Your task to perform on an android device: Open Amazon Image 0: 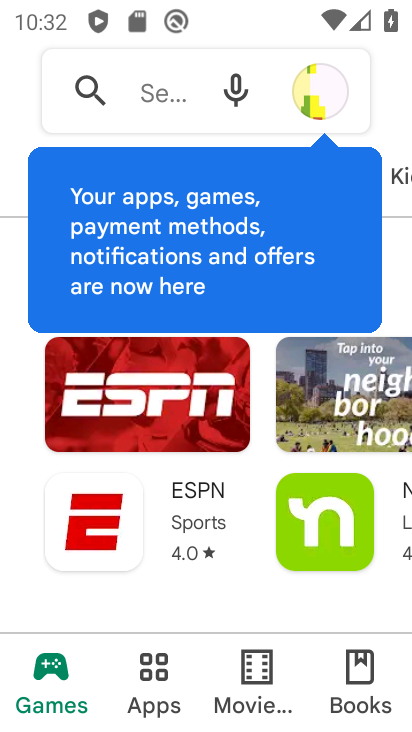
Step 0: press back button
Your task to perform on an android device: Open Amazon Image 1: 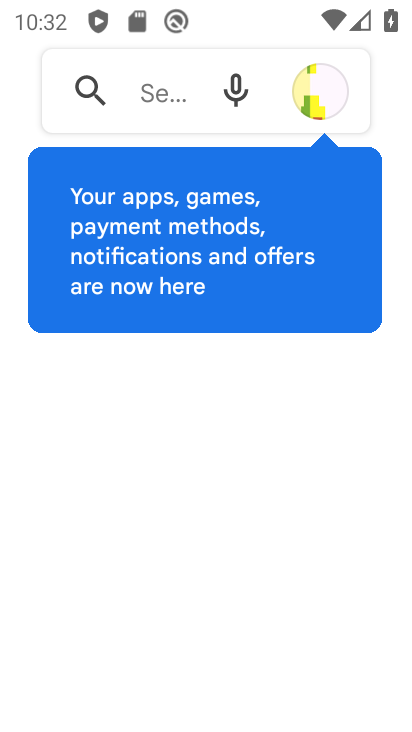
Step 1: press back button
Your task to perform on an android device: Open Amazon Image 2: 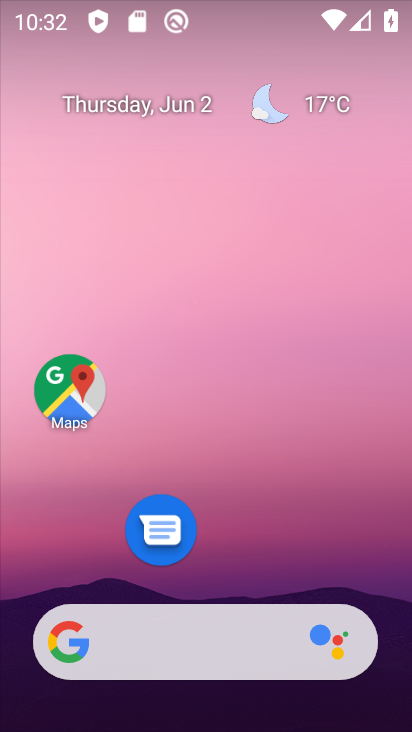
Step 2: drag from (316, 683) to (164, 100)
Your task to perform on an android device: Open Amazon Image 3: 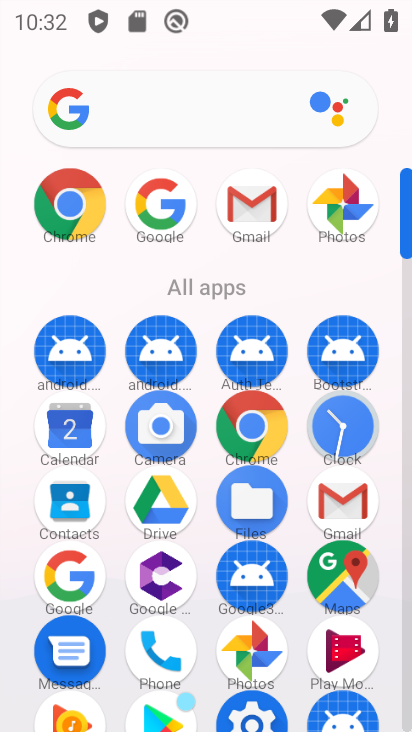
Step 3: click (75, 202)
Your task to perform on an android device: Open Amazon Image 4: 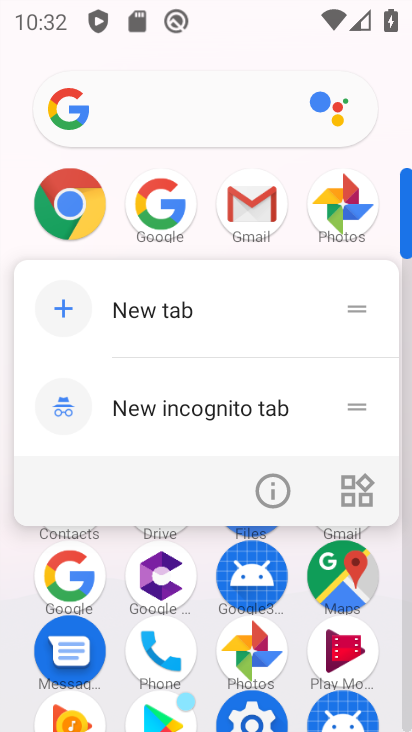
Step 4: click (75, 202)
Your task to perform on an android device: Open Amazon Image 5: 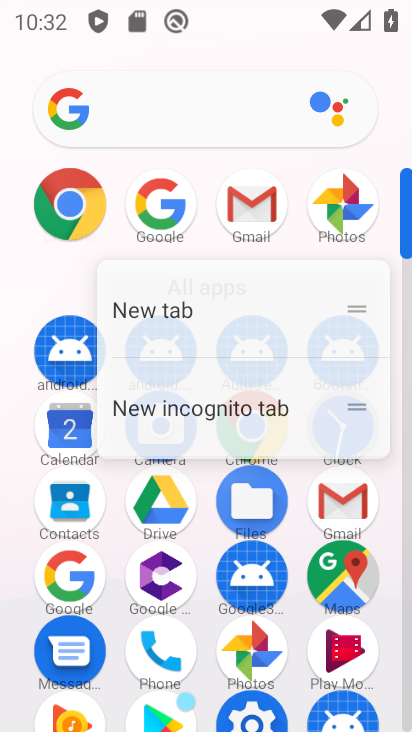
Step 5: click (72, 202)
Your task to perform on an android device: Open Amazon Image 6: 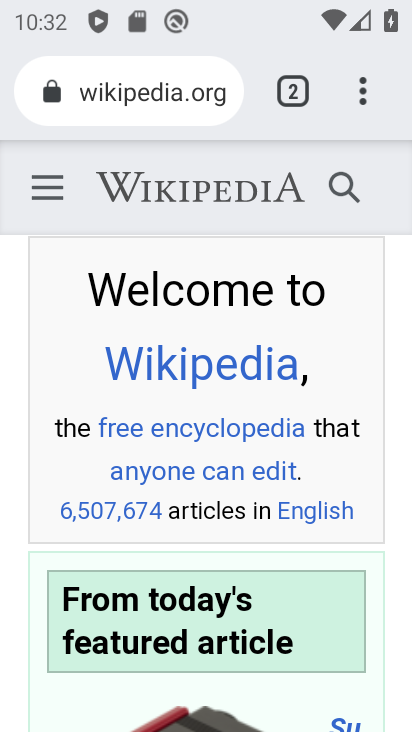
Step 6: click (360, 96)
Your task to perform on an android device: Open Amazon Image 7: 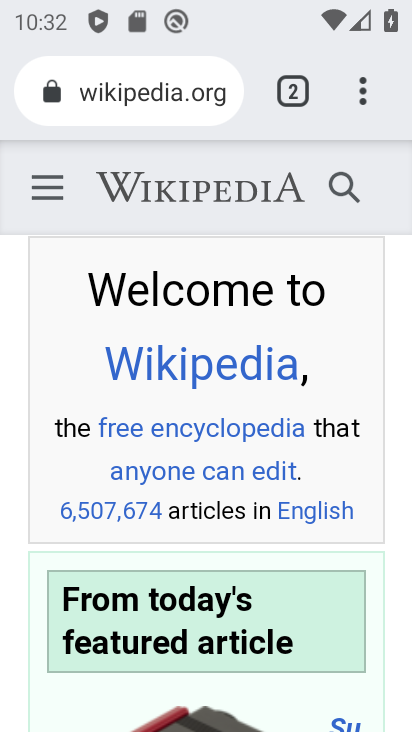
Step 7: click (360, 98)
Your task to perform on an android device: Open Amazon Image 8: 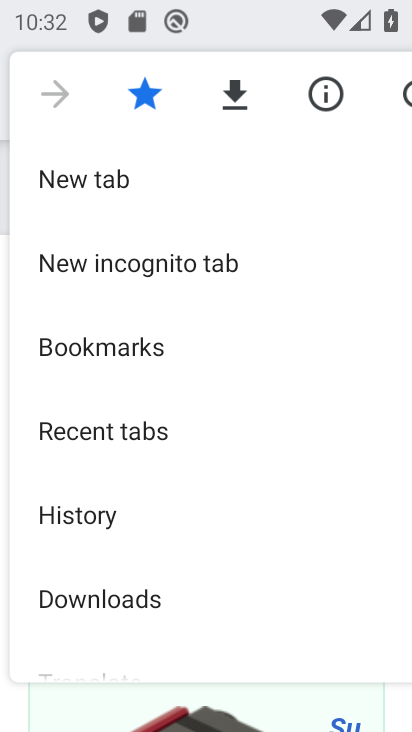
Step 8: click (63, 185)
Your task to perform on an android device: Open Amazon Image 9: 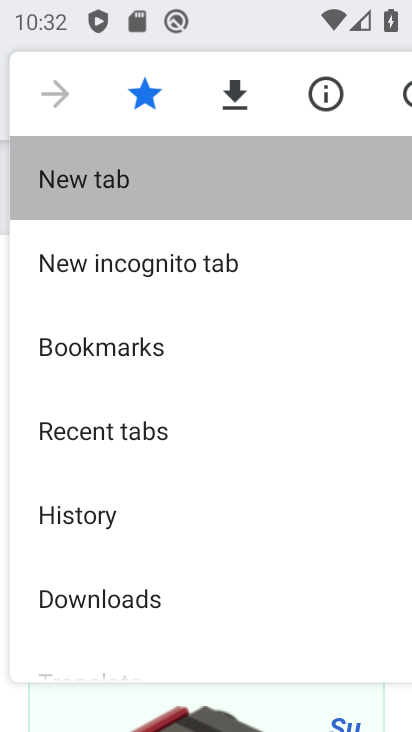
Step 9: click (63, 185)
Your task to perform on an android device: Open Amazon Image 10: 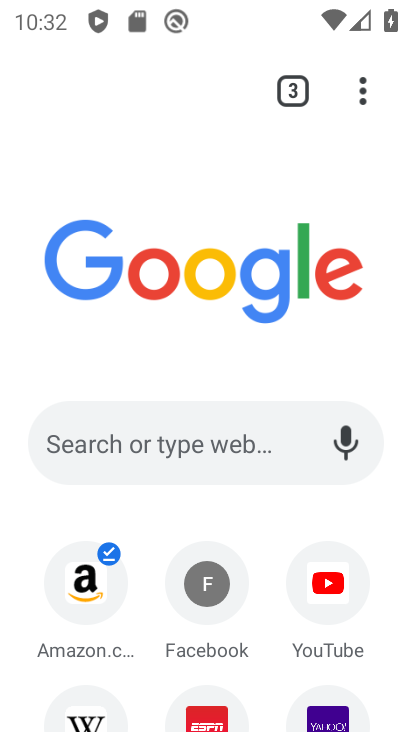
Step 10: click (100, 578)
Your task to perform on an android device: Open Amazon Image 11: 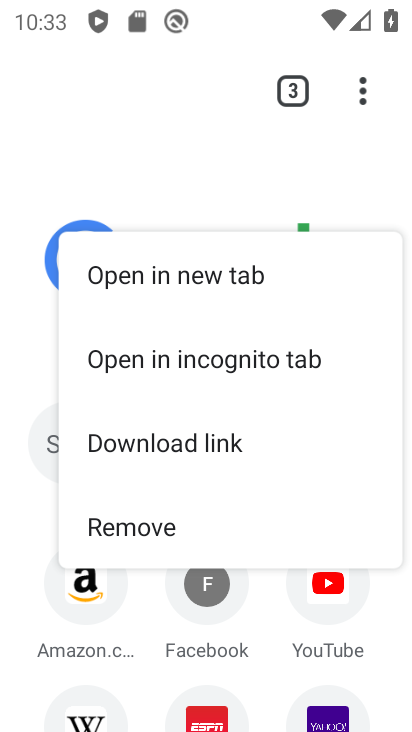
Step 11: click (86, 578)
Your task to perform on an android device: Open Amazon Image 12: 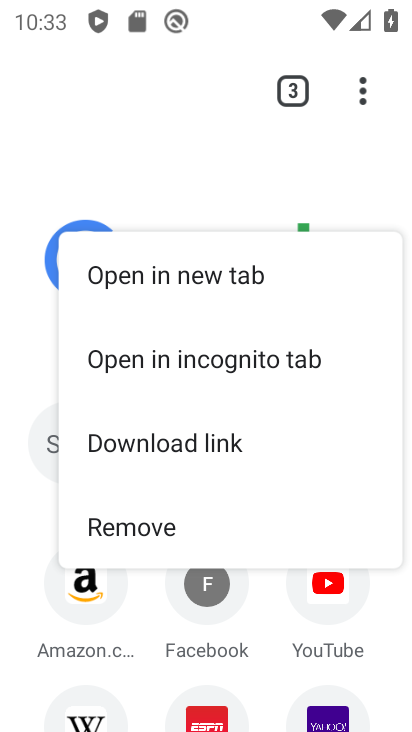
Step 12: click (78, 570)
Your task to perform on an android device: Open Amazon Image 13: 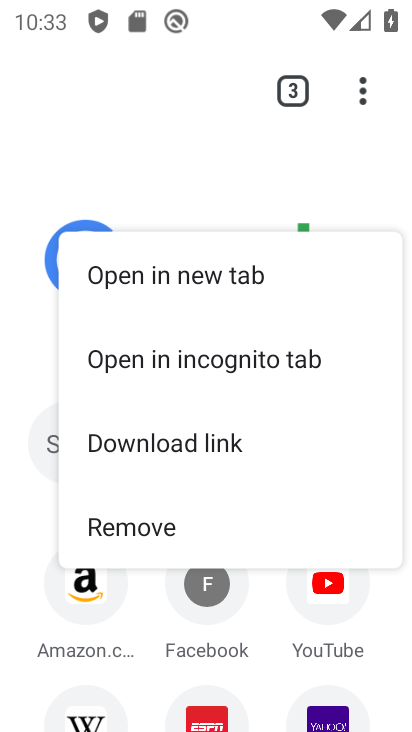
Step 13: click (74, 567)
Your task to perform on an android device: Open Amazon Image 14: 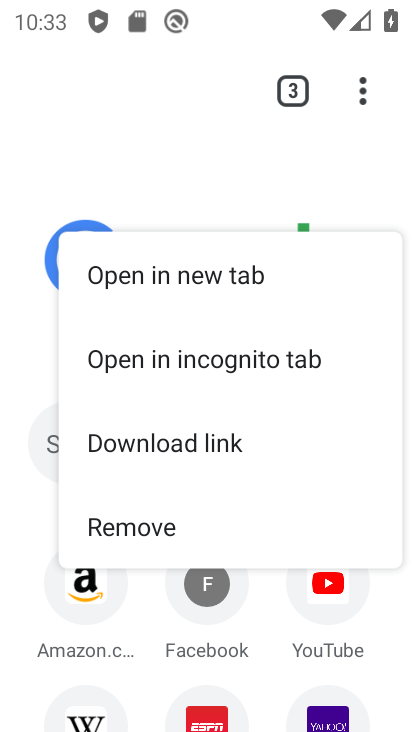
Step 14: click (74, 566)
Your task to perform on an android device: Open Amazon Image 15: 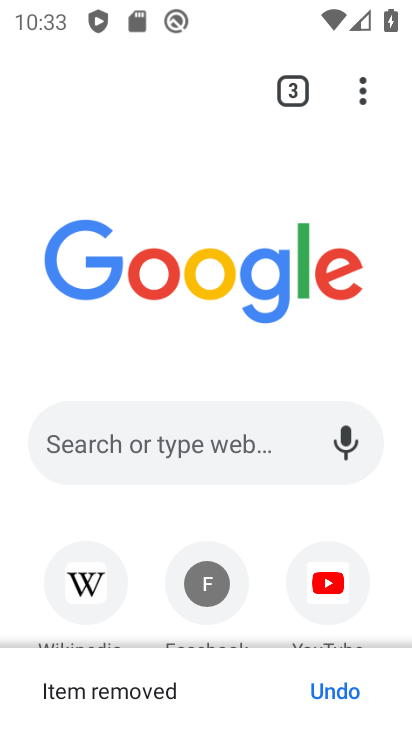
Step 15: click (73, 558)
Your task to perform on an android device: Open Amazon Image 16: 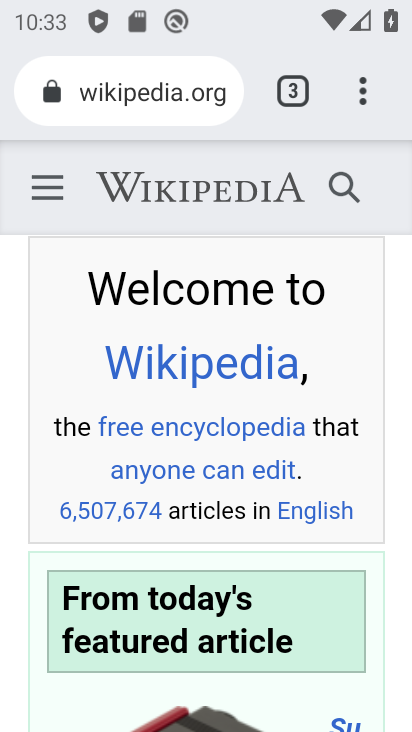
Step 16: click (83, 590)
Your task to perform on an android device: Open Amazon Image 17: 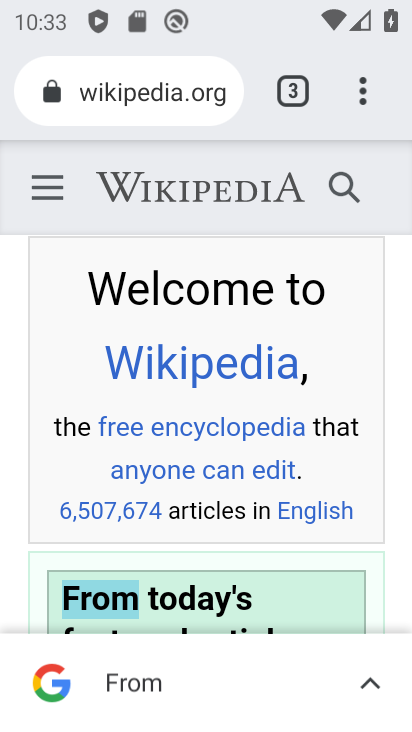
Step 17: click (83, 590)
Your task to perform on an android device: Open Amazon Image 18: 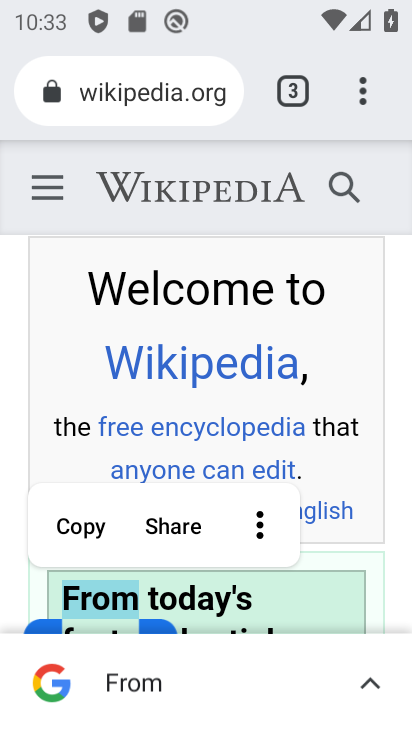
Step 18: click (309, 593)
Your task to perform on an android device: Open Amazon Image 19: 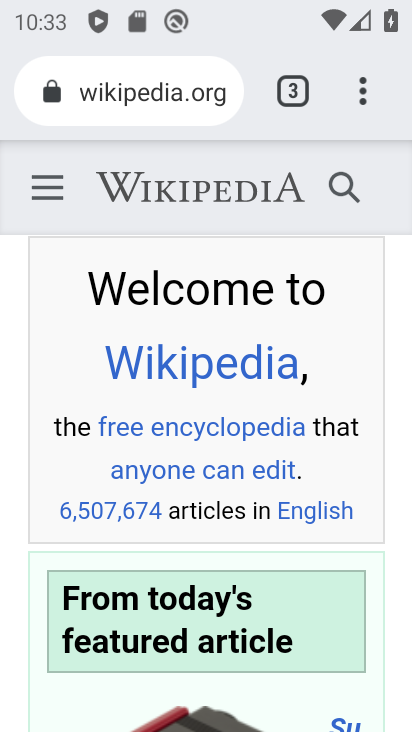
Step 19: click (361, 98)
Your task to perform on an android device: Open Amazon Image 20: 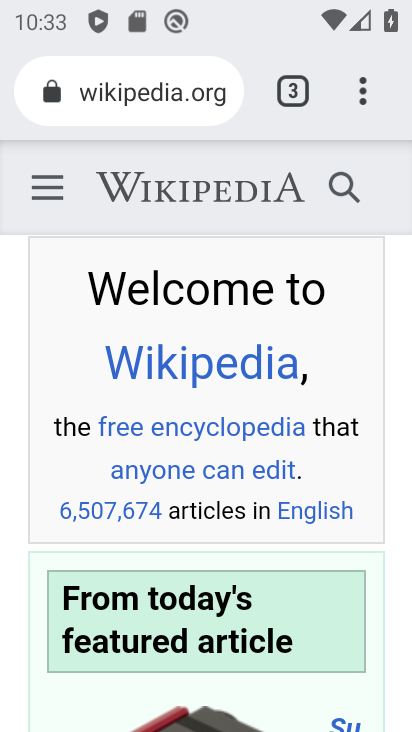
Step 20: click (359, 87)
Your task to perform on an android device: Open Amazon Image 21: 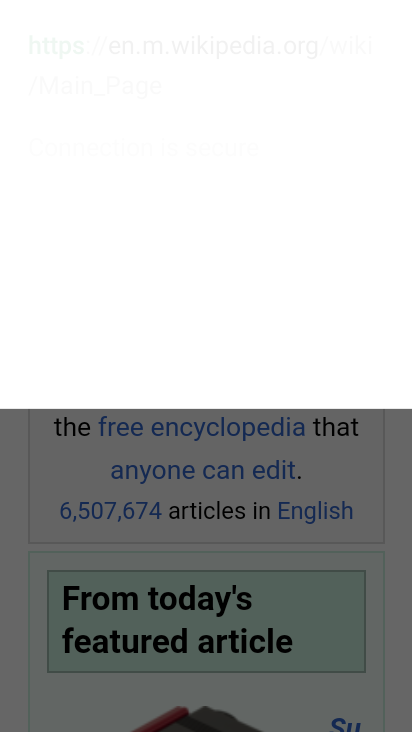
Step 21: click (354, 83)
Your task to perform on an android device: Open Amazon Image 22: 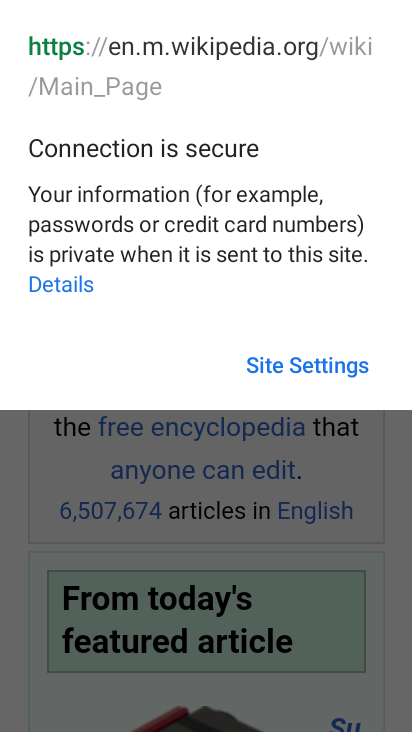
Step 22: click (356, 102)
Your task to perform on an android device: Open Amazon Image 23: 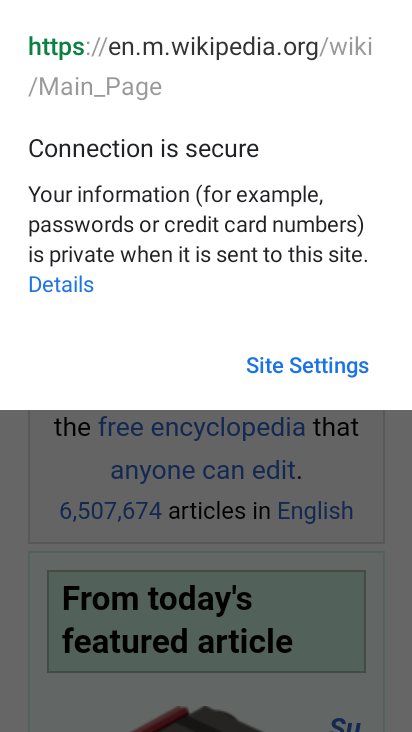
Step 23: drag from (364, 576) to (395, 482)
Your task to perform on an android device: Open Amazon Image 24: 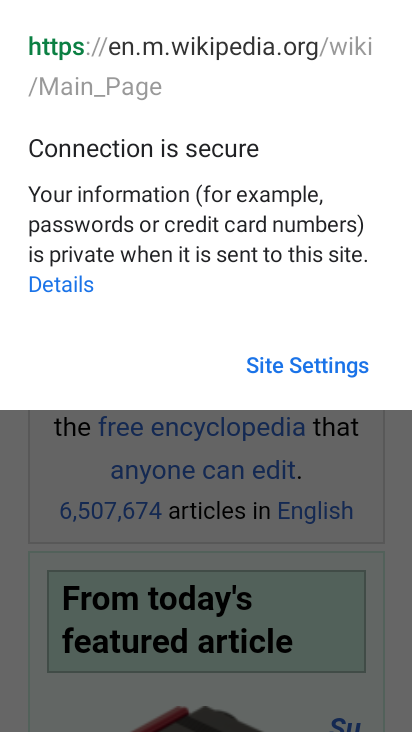
Step 24: click (399, 475)
Your task to perform on an android device: Open Amazon Image 25: 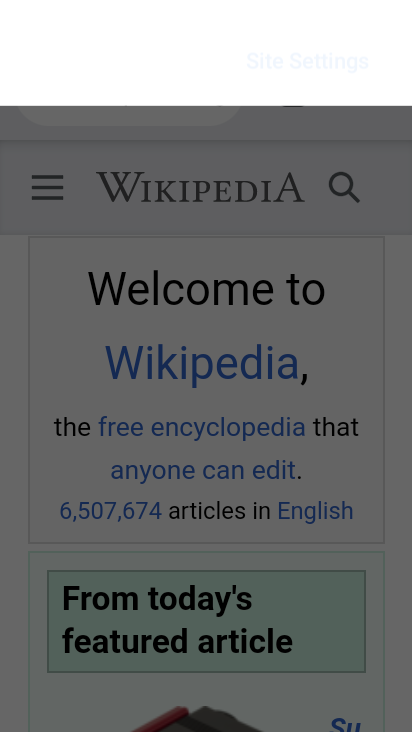
Step 25: click (386, 469)
Your task to perform on an android device: Open Amazon Image 26: 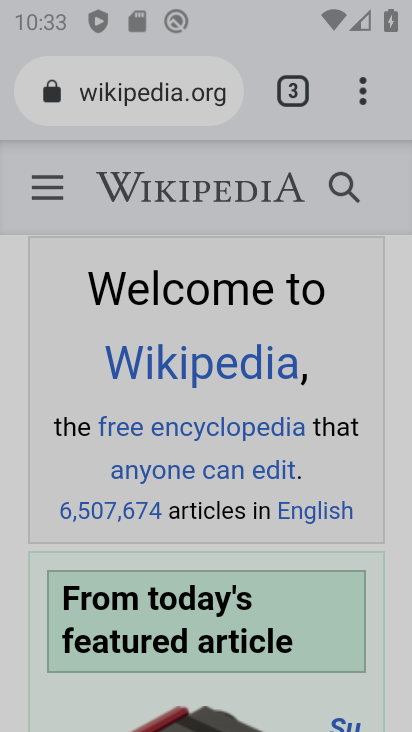
Step 26: click (385, 463)
Your task to perform on an android device: Open Amazon Image 27: 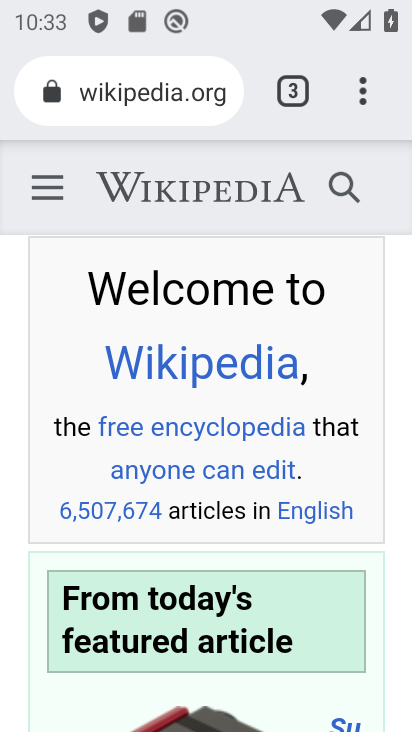
Step 27: click (387, 458)
Your task to perform on an android device: Open Amazon Image 28: 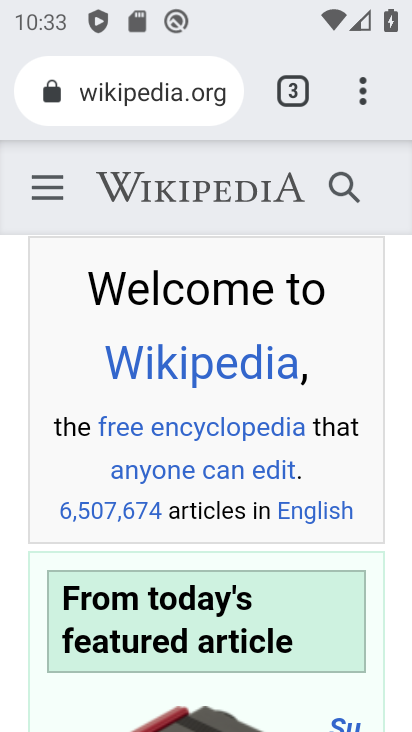
Step 28: drag from (352, 97) to (80, 188)
Your task to perform on an android device: Open Amazon Image 29: 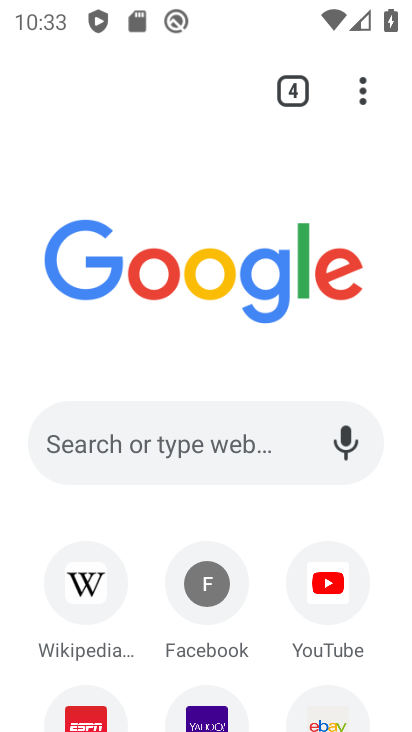
Step 29: drag from (176, 479) to (161, 266)
Your task to perform on an android device: Open Amazon Image 30: 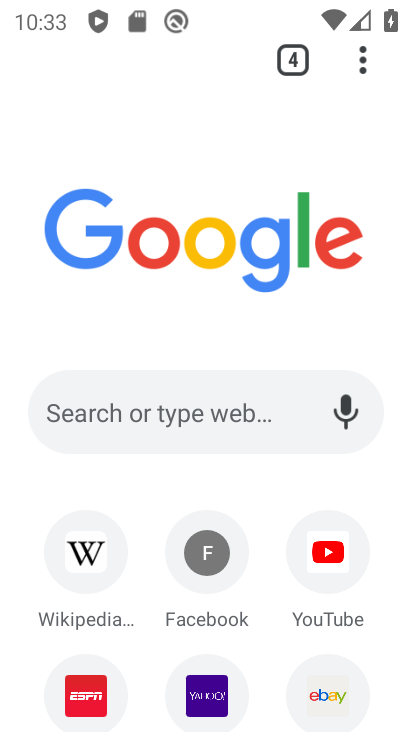
Step 30: drag from (217, 524) to (230, 249)
Your task to perform on an android device: Open Amazon Image 31: 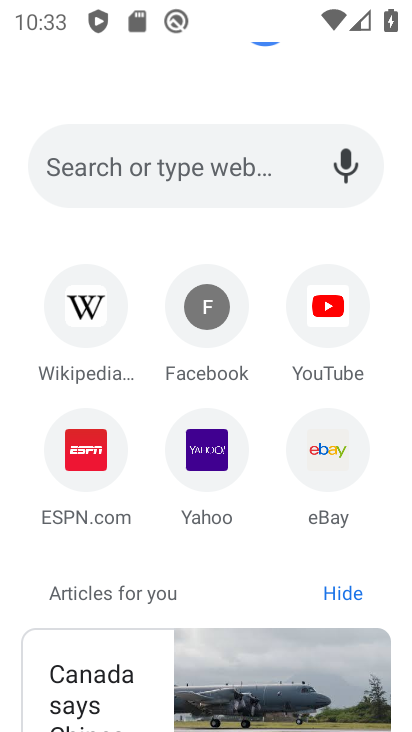
Step 31: click (75, 172)
Your task to perform on an android device: Open Amazon Image 32: 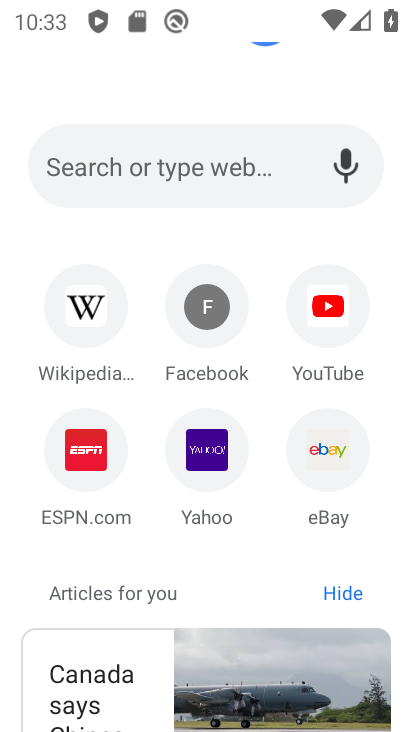
Step 32: click (75, 172)
Your task to perform on an android device: Open Amazon Image 33: 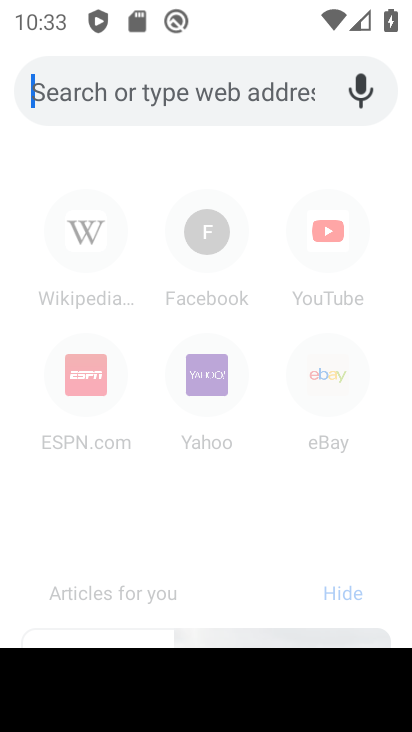
Step 33: type "am"
Your task to perform on an android device: Open Amazon Image 34: 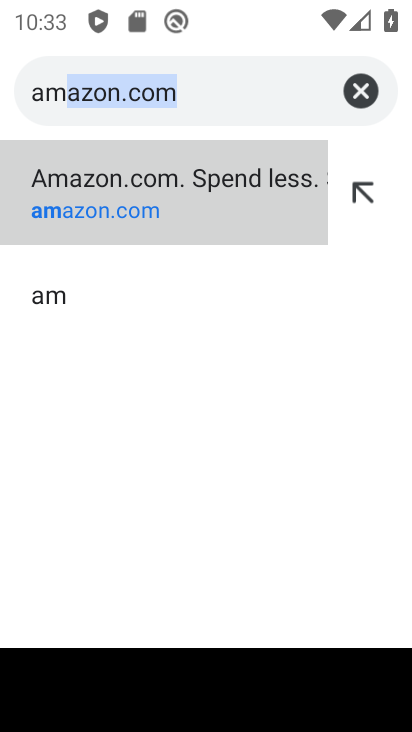
Step 34: click (137, 222)
Your task to perform on an android device: Open Amazon Image 35: 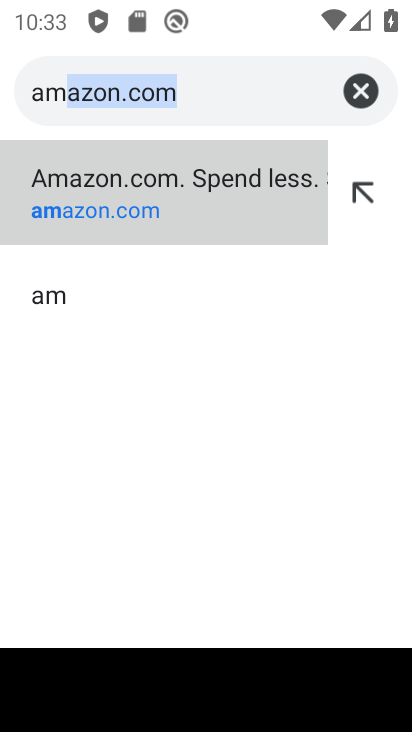
Step 35: click (137, 222)
Your task to perform on an android device: Open Amazon Image 36: 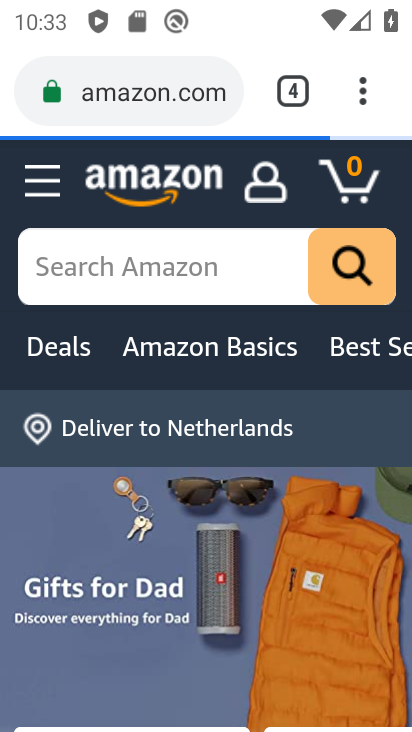
Step 36: task complete